Your task to perform on an android device: Search for vegetarian restaurants on Maps Image 0: 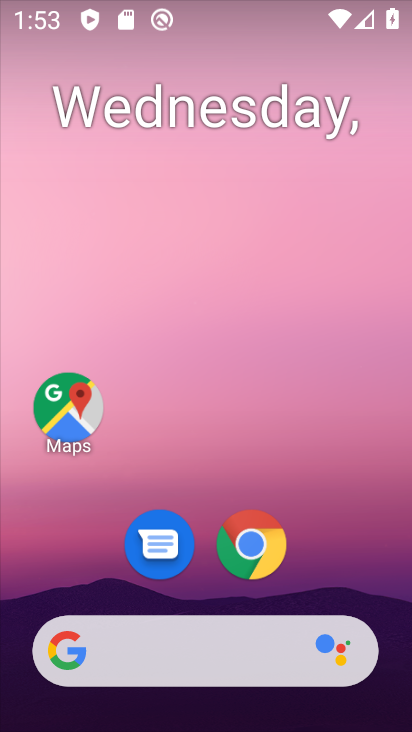
Step 0: drag from (312, 560) to (306, 78)
Your task to perform on an android device: Search for vegetarian restaurants on Maps Image 1: 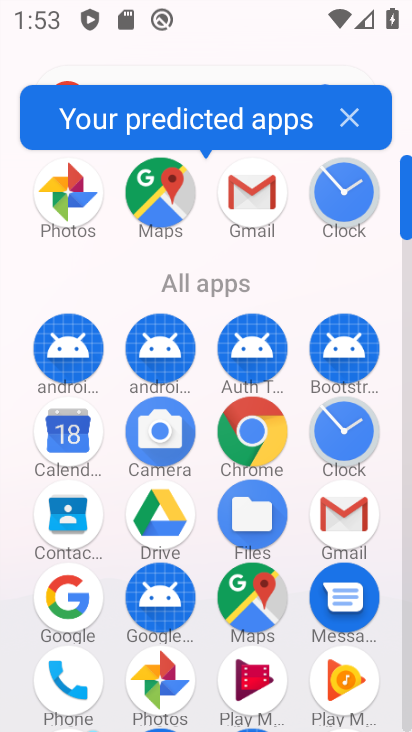
Step 1: click (157, 226)
Your task to perform on an android device: Search for vegetarian restaurants on Maps Image 2: 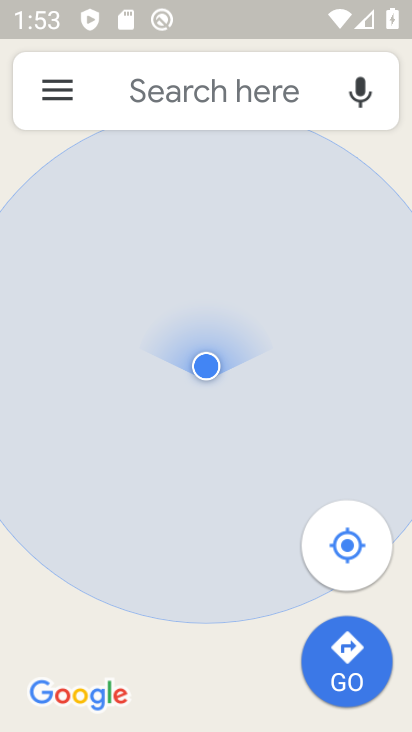
Step 2: click (163, 75)
Your task to perform on an android device: Search for vegetarian restaurants on Maps Image 3: 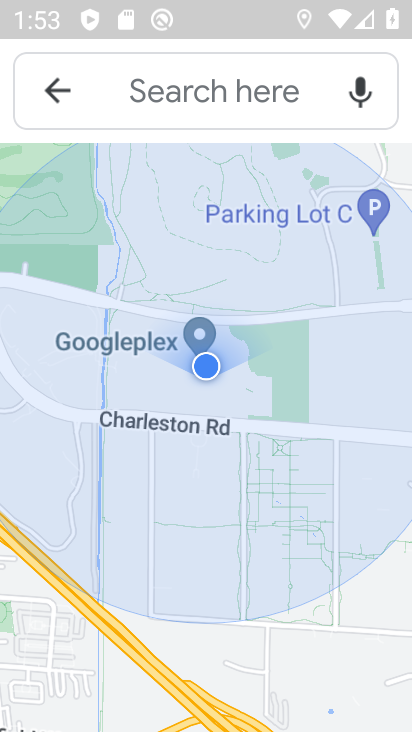
Step 3: click (171, 83)
Your task to perform on an android device: Search for vegetarian restaurants on Maps Image 4: 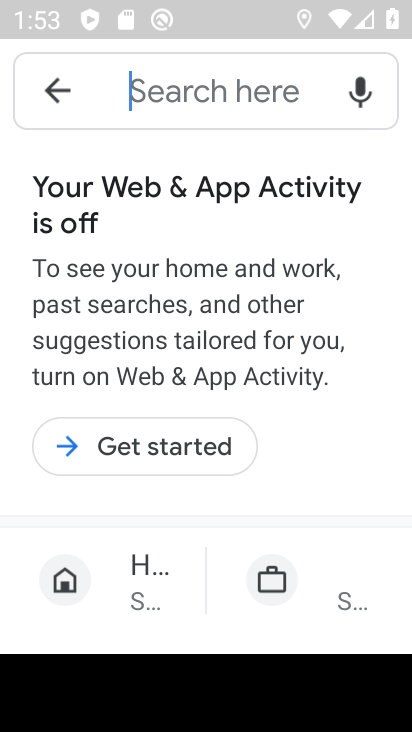
Step 4: type "vegetarian"
Your task to perform on an android device: Search for vegetarian restaurants on Maps Image 5: 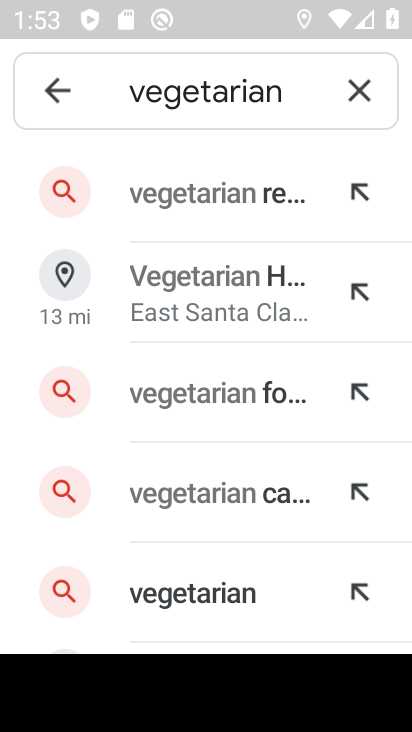
Step 5: click (257, 208)
Your task to perform on an android device: Search for vegetarian restaurants on Maps Image 6: 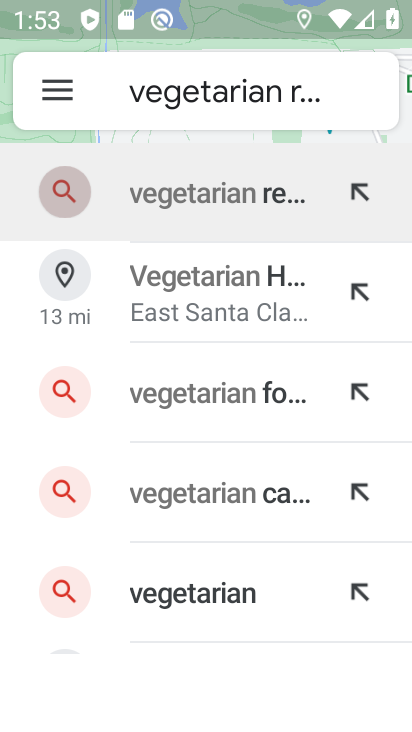
Step 6: task complete